Your task to perform on an android device: open device folders in google photos Image 0: 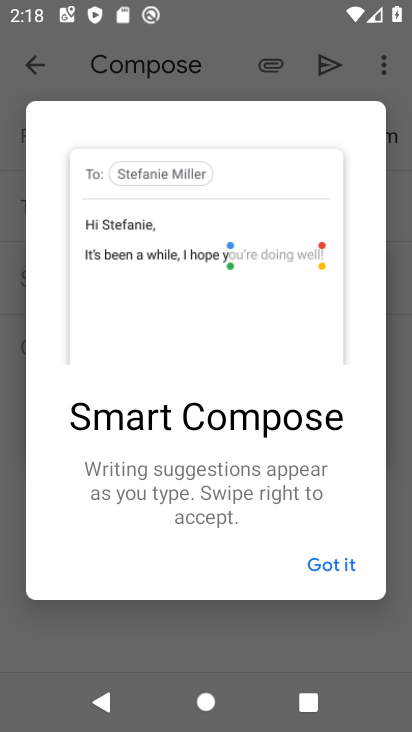
Step 0: press home button
Your task to perform on an android device: open device folders in google photos Image 1: 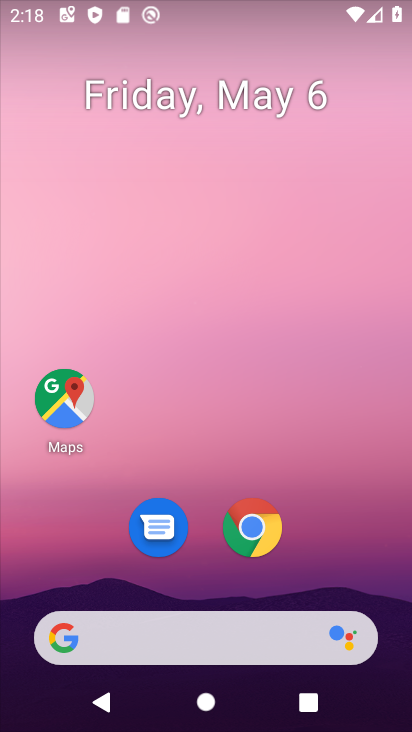
Step 1: drag from (295, 595) to (324, 104)
Your task to perform on an android device: open device folders in google photos Image 2: 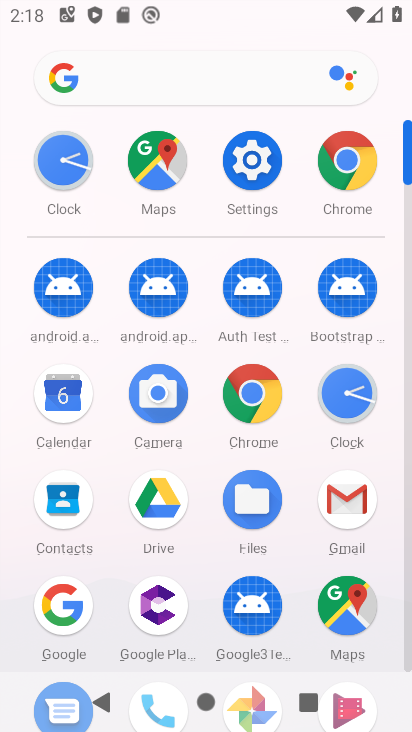
Step 2: drag from (302, 246) to (323, 11)
Your task to perform on an android device: open device folders in google photos Image 3: 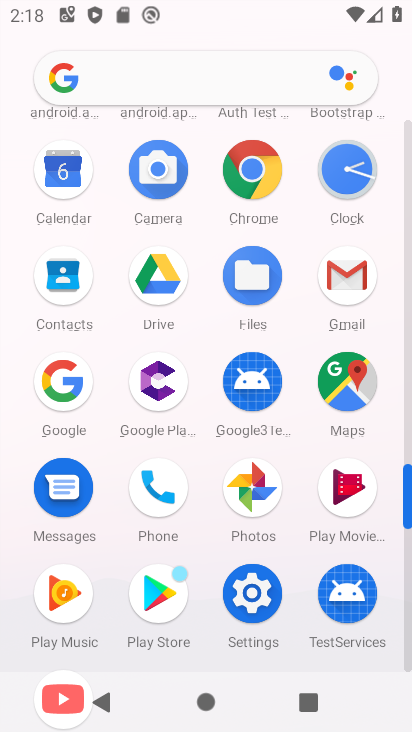
Step 3: click (249, 471)
Your task to perform on an android device: open device folders in google photos Image 4: 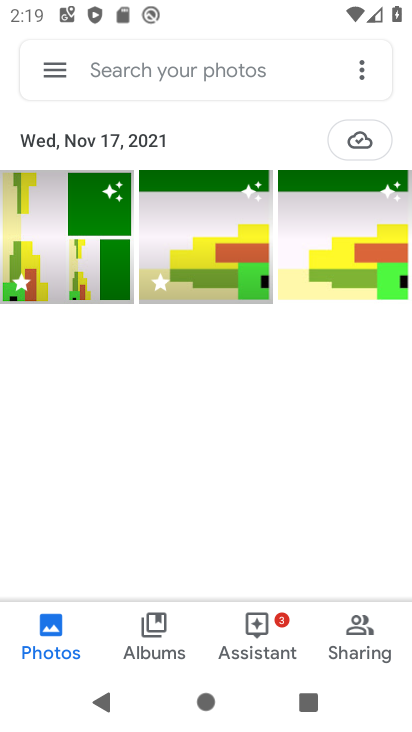
Step 4: click (59, 71)
Your task to perform on an android device: open device folders in google photos Image 5: 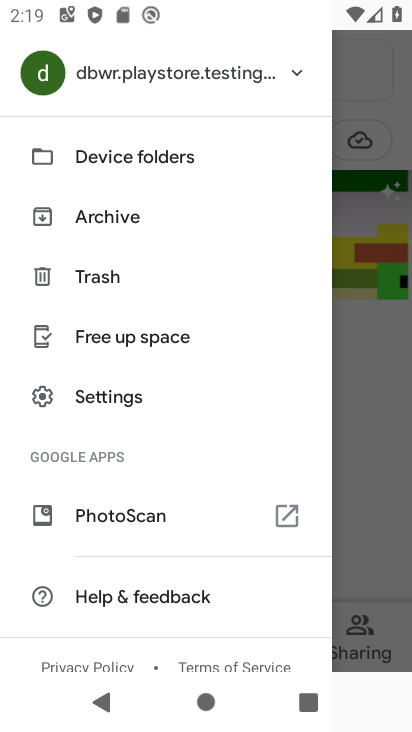
Step 5: click (122, 146)
Your task to perform on an android device: open device folders in google photos Image 6: 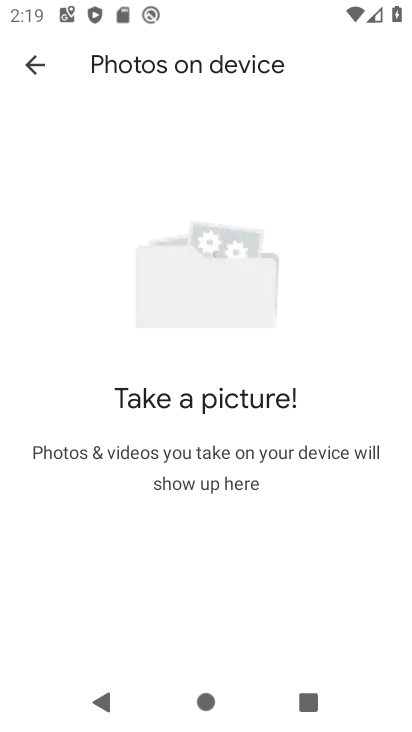
Step 6: task complete